Your task to perform on an android device: Open the Play Movies app and select the watchlist tab. Image 0: 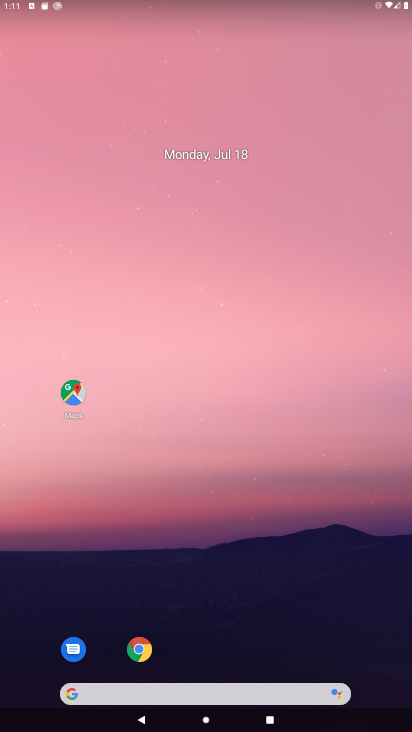
Step 0: drag from (387, 675) to (333, 85)
Your task to perform on an android device: Open the Play Movies app and select the watchlist tab. Image 1: 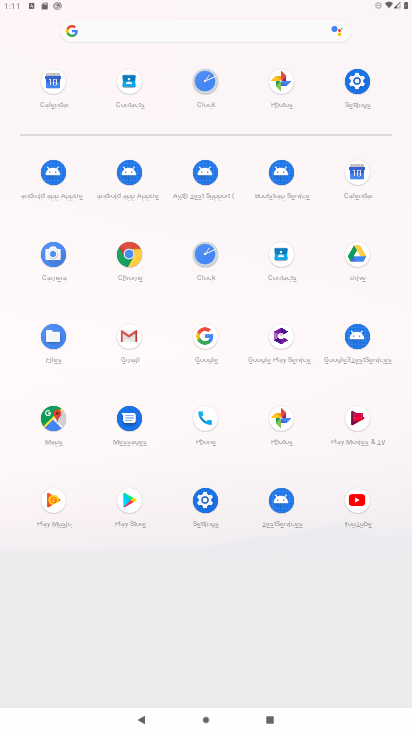
Step 1: click (360, 415)
Your task to perform on an android device: Open the Play Movies app and select the watchlist tab. Image 2: 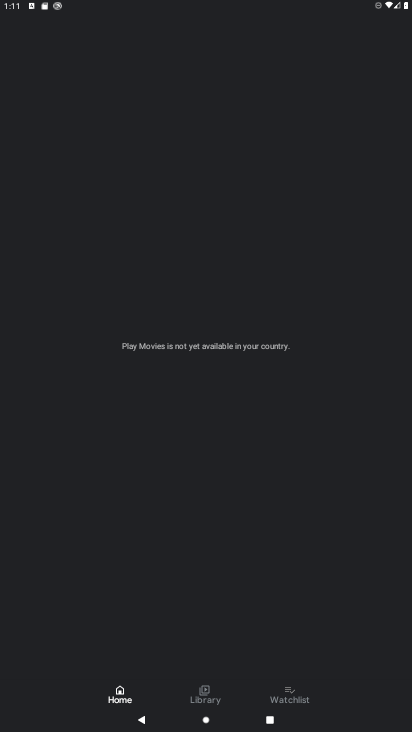
Step 2: click (285, 699)
Your task to perform on an android device: Open the Play Movies app and select the watchlist tab. Image 3: 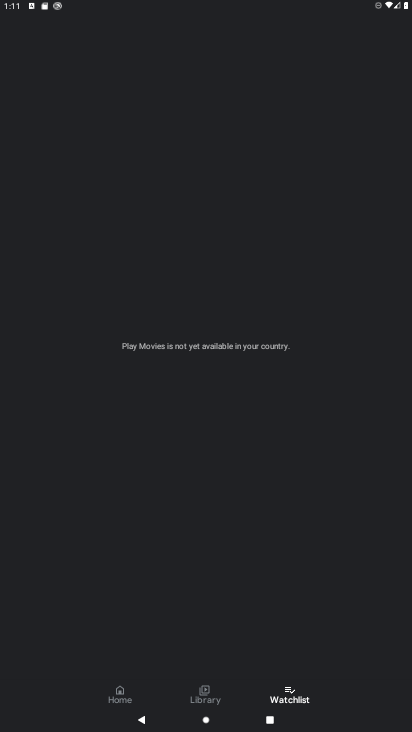
Step 3: task complete